Your task to perform on an android device: check battery use Image 0: 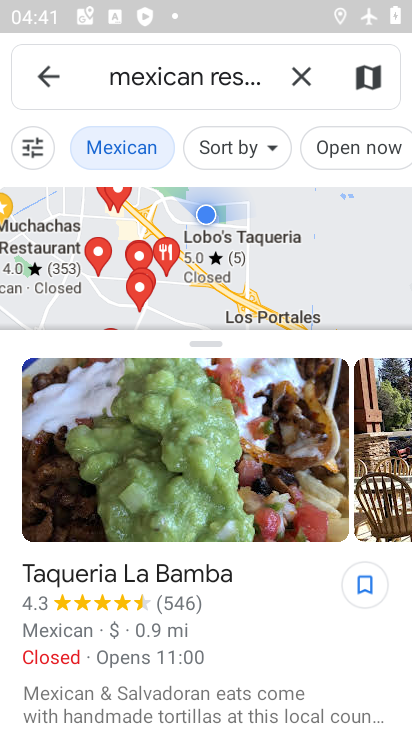
Step 0: press home button
Your task to perform on an android device: check battery use Image 1: 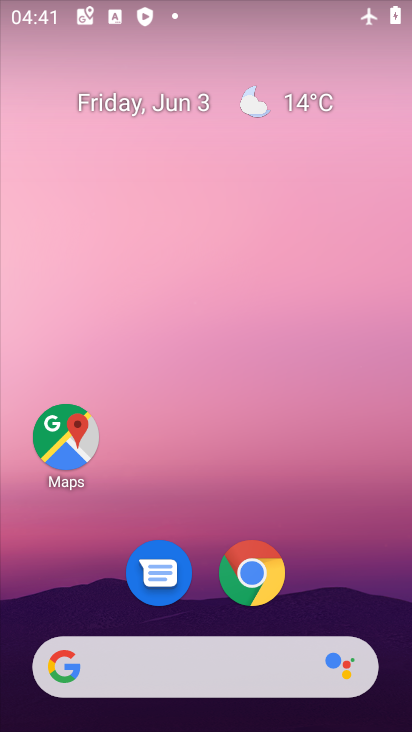
Step 1: drag from (183, 676) to (232, 9)
Your task to perform on an android device: check battery use Image 2: 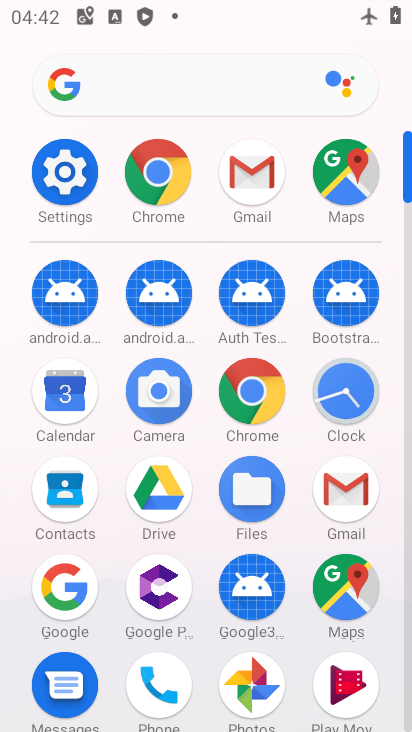
Step 2: click (69, 186)
Your task to perform on an android device: check battery use Image 3: 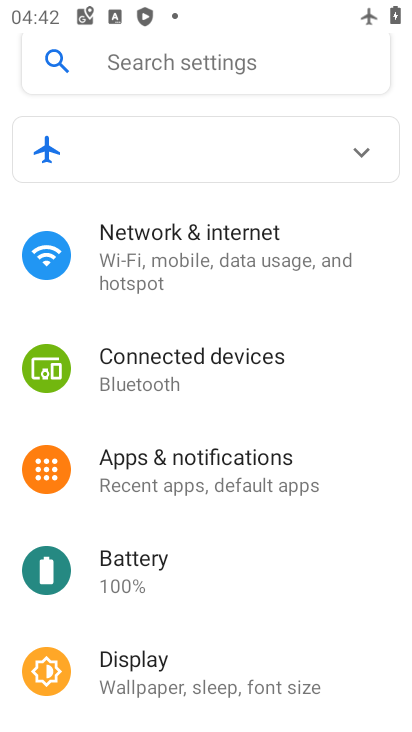
Step 3: click (143, 599)
Your task to perform on an android device: check battery use Image 4: 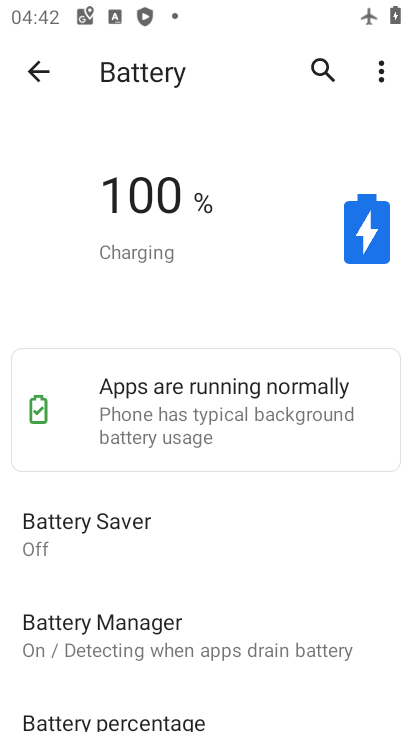
Step 4: drag from (302, 641) to (328, 61)
Your task to perform on an android device: check battery use Image 5: 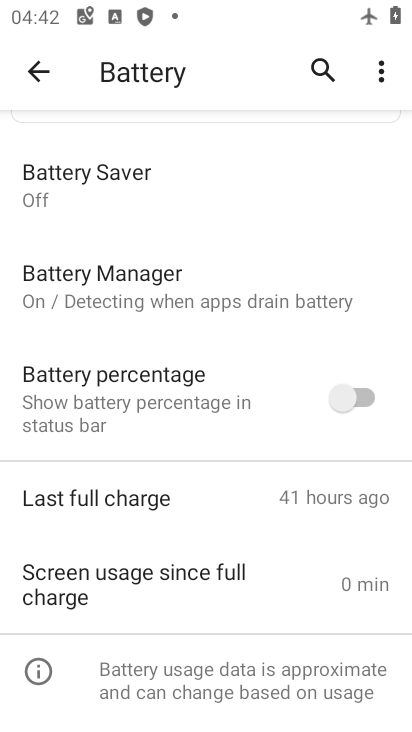
Step 5: drag from (226, 611) to (221, 441)
Your task to perform on an android device: check battery use Image 6: 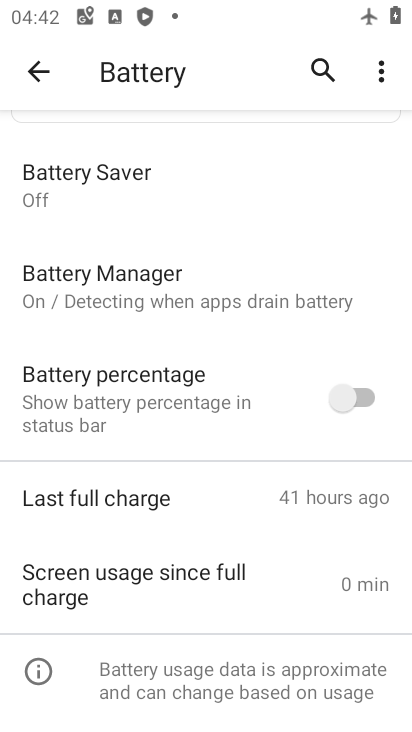
Step 6: drag from (266, 259) to (270, 668)
Your task to perform on an android device: check battery use Image 7: 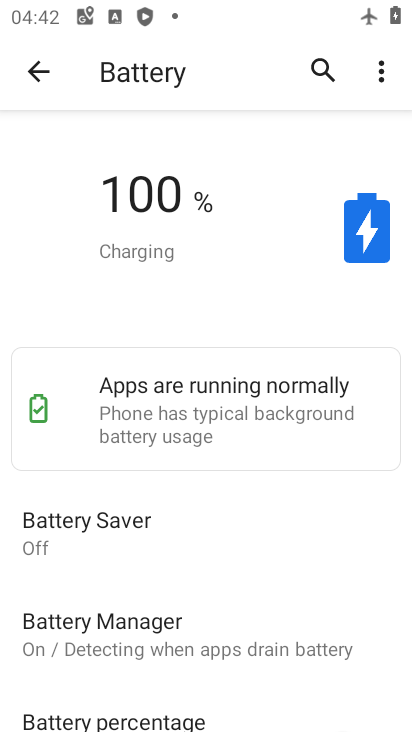
Step 7: click (127, 237)
Your task to perform on an android device: check battery use Image 8: 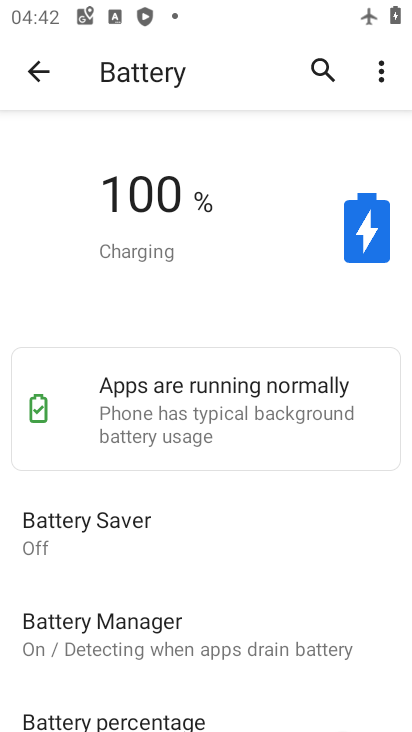
Step 8: drag from (262, 535) to (210, 236)
Your task to perform on an android device: check battery use Image 9: 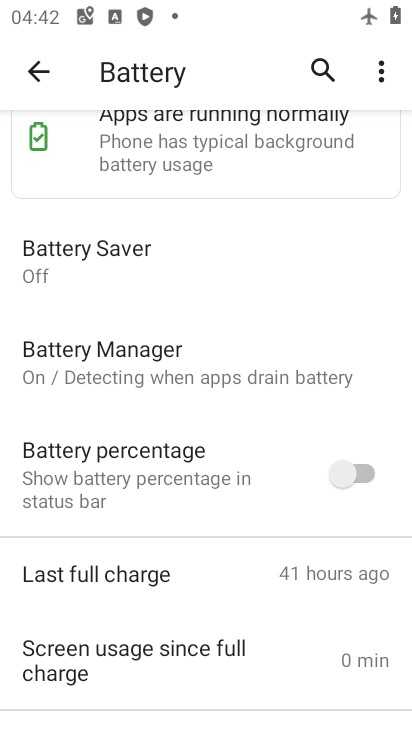
Step 9: drag from (210, 664) to (203, 509)
Your task to perform on an android device: check battery use Image 10: 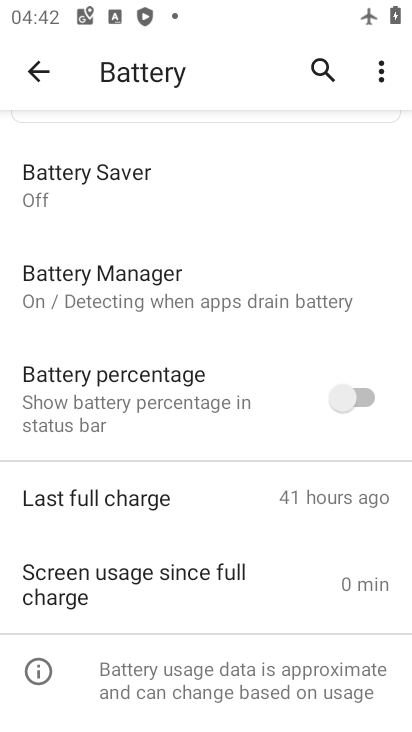
Step 10: click (172, 590)
Your task to perform on an android device: check battery use Image 11: 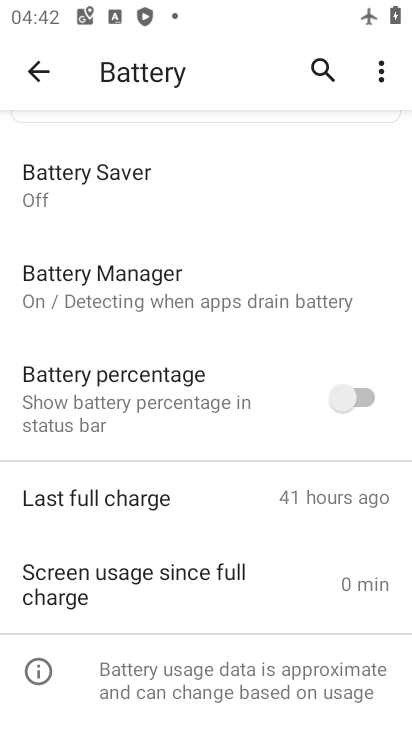
Step 11: click (181, 290)
Your task to perform on an android device: check battery use Image 12: 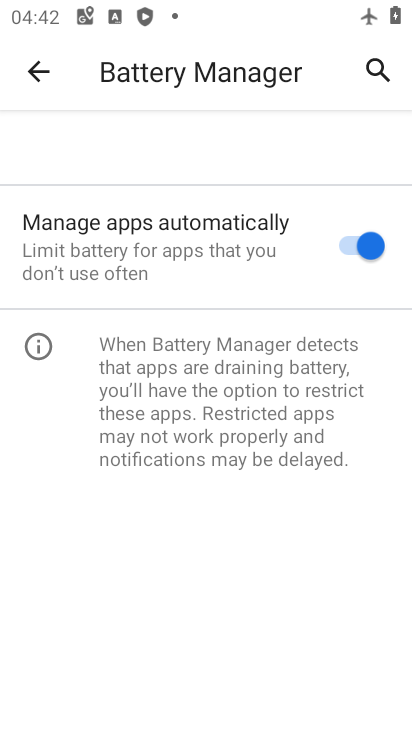
Step 12: drag from (218, 430) to (217, 272)
Your task to perform on an android device: check battery use Image 13: 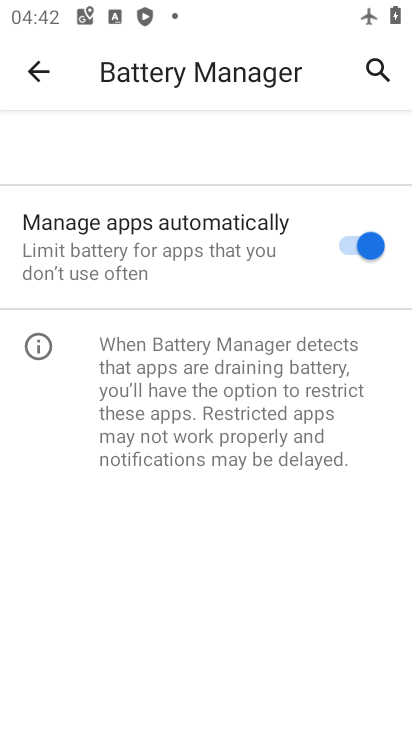
Step 13: click (38, 75)
Your task to perform on an android device: check battery use Image 14: 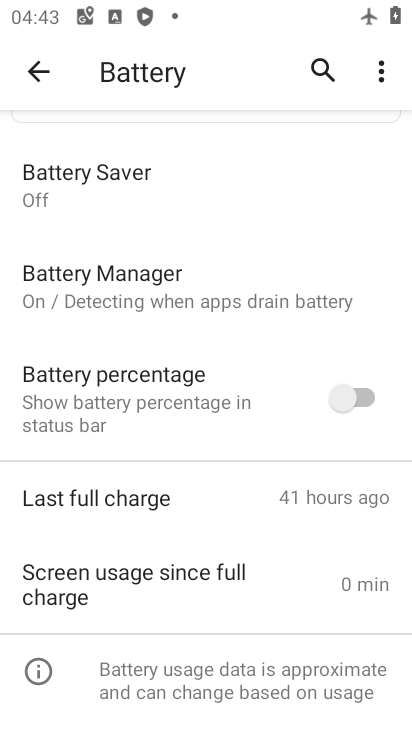
Step 14: click (381, 75)
Your task to perform on an android device: check battery use Image 15: 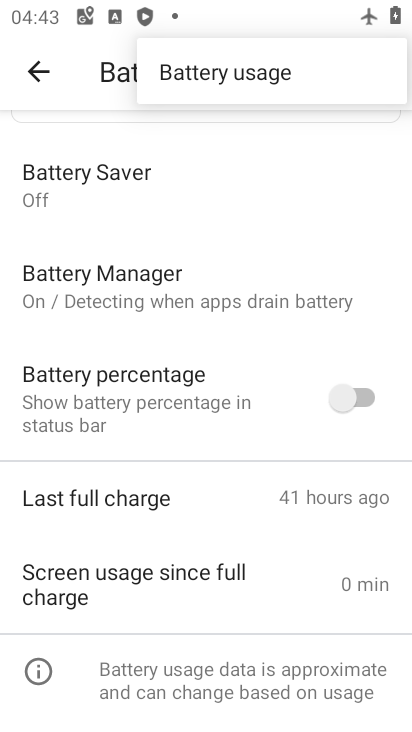
Step 15: click (234, 74)
Your task to perform on an android device: check battery use Image 16: 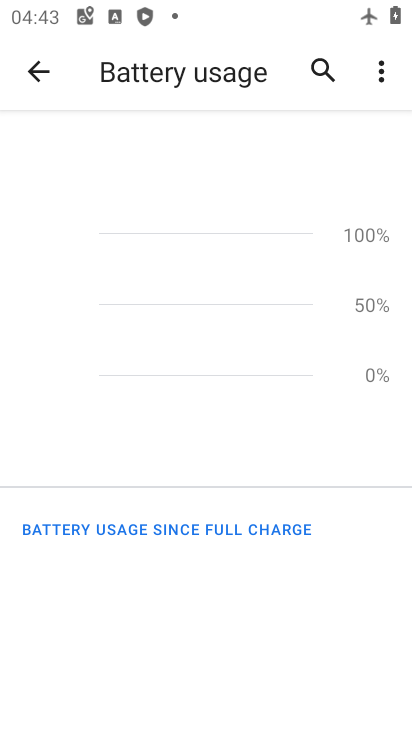
Step 16: click (232, 77)
Your task to perform on an android device: check battery use Image 17: 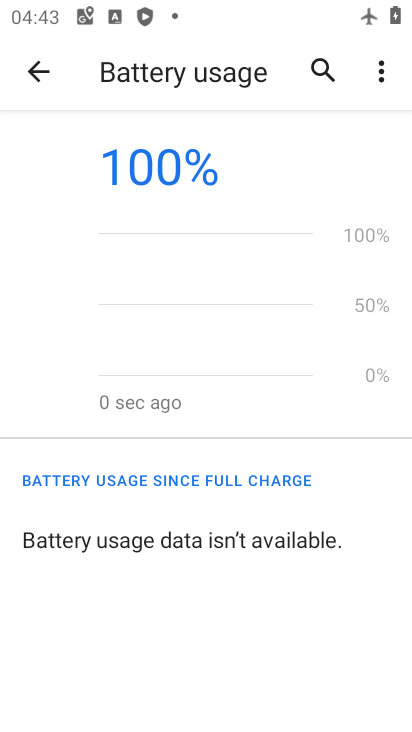
Step 17: task complete